Your task to perform on an android device: check android version Image 0: 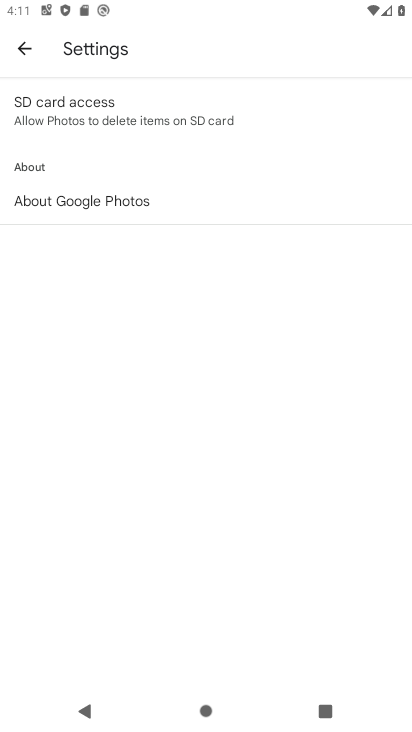
Step 0: press home button
Your task to perform on an android device: check android version Image 1: 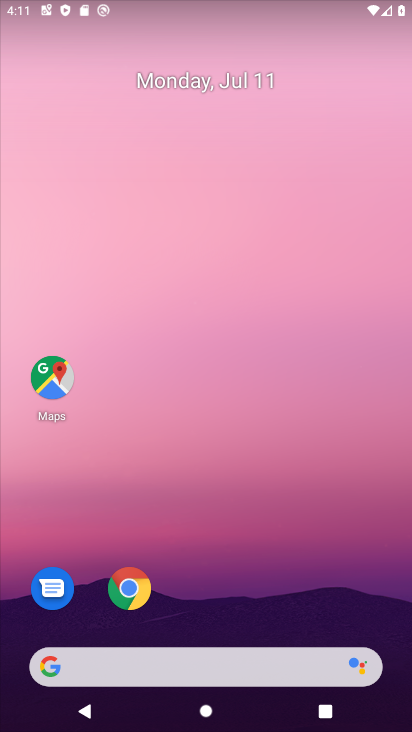
Step 1: drag from (336, 609) to (343, 127)
Your task to perform on an android device: check android version Image 2: 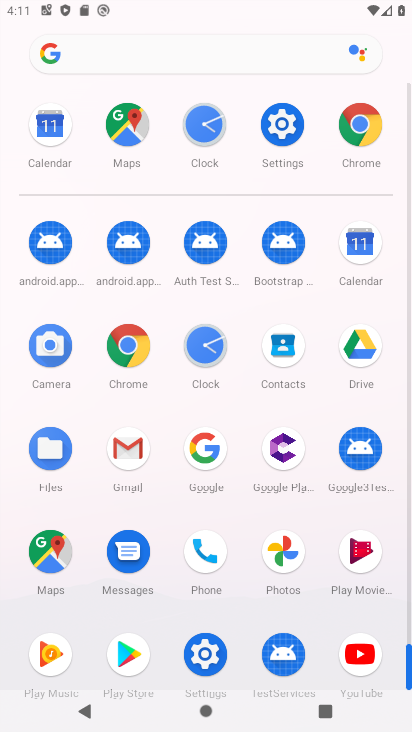
Step 2: click (287, 136)
Your task to perform on an android device: check android version Image 3: 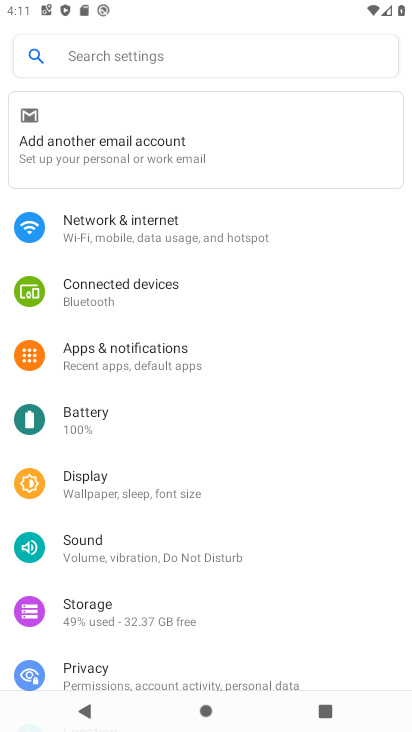
Step 3: drag from (339, 472) to (336, 332)
Your task to perform on an android device: check android version Image 4: 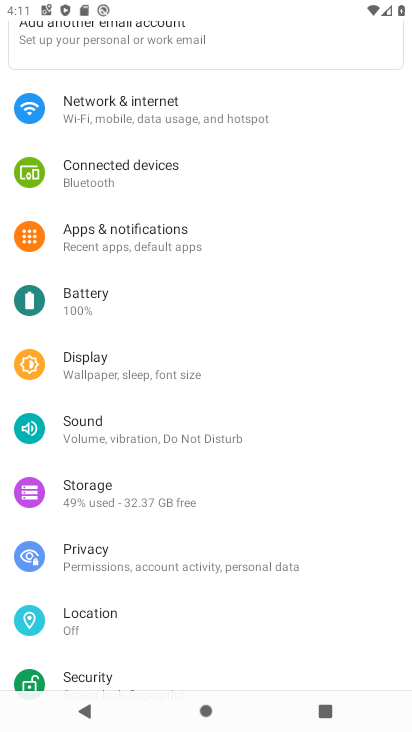
Step 4: drag from (350, 476) to (348, 348)
Your task to perform on an android device: check android version Image 5: 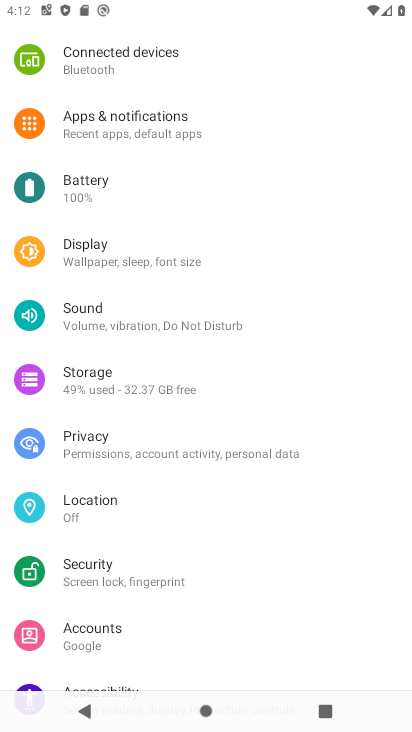
Step 5: drag from (344, 533) to (353, 394)
Your task to perform on an android device: check android version Image 6: 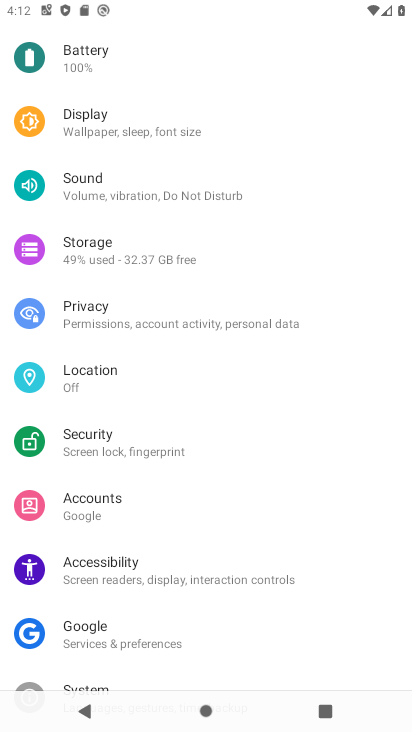
Step 6: drag from (351, 564) to (350, 444)
Your task to perform on an android device: check android version Image 7: 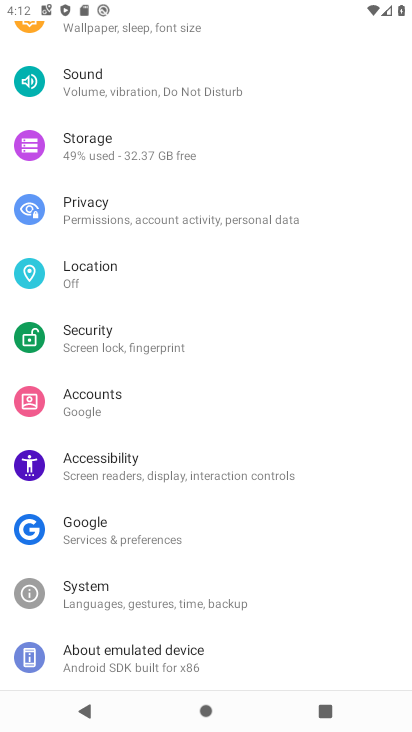
Step 7: drag from (339, 582) to (340, 415)
Your task to perform on an android device: check android version Image 8: 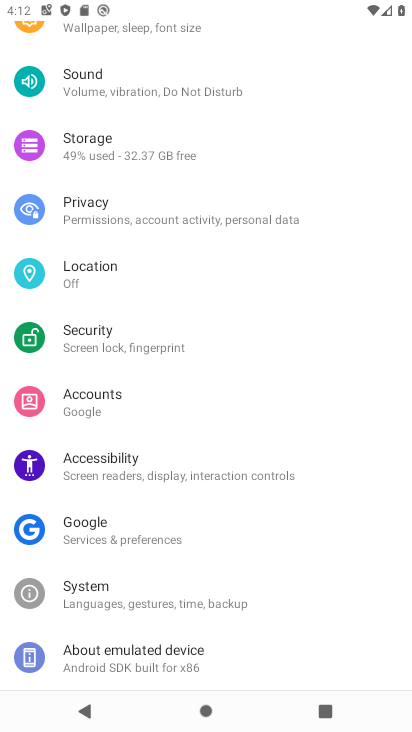
Step 8: drag from (363, 212) to (367, 379)
Your task to perform on an android device: check android version Image 9: 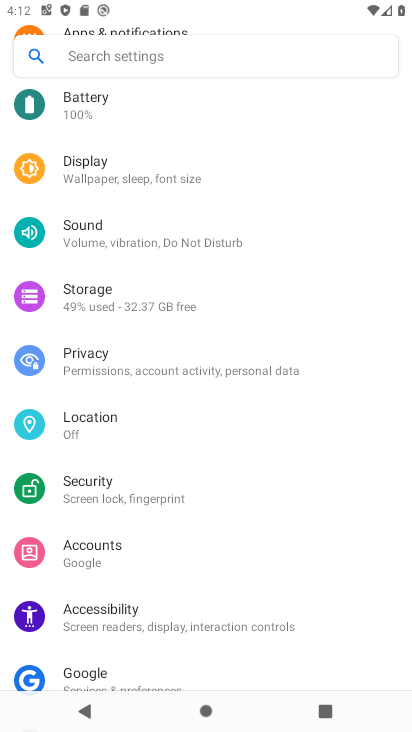
Step 9: drag from (339, 172) to (339, 330)
Your task to perform on an android device: check android version Image 10: 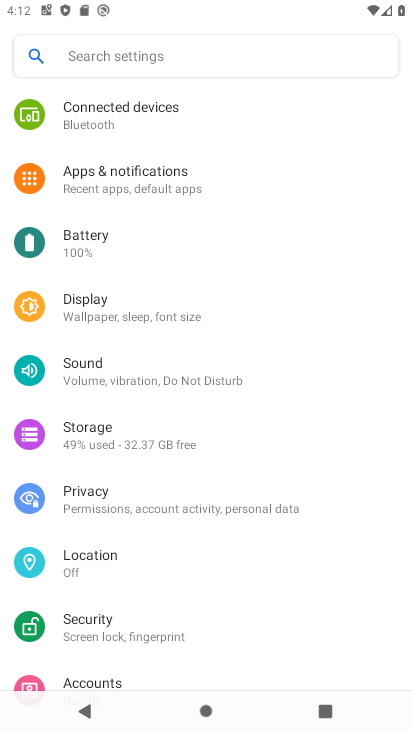
Step 10: drag from (335, 174) to (347, 368)
Your task to perform on an android device: check android version Image 11: 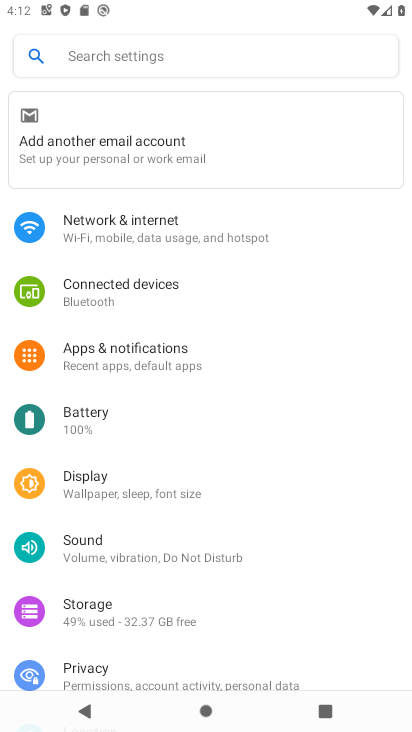
Step 11: drag from (341, 214) to (353, 364)
Your task to perform on an android device: check android version Image 12: 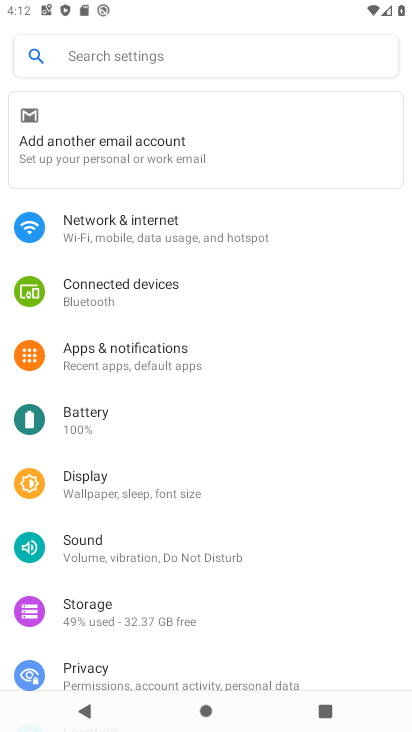
Step 12: drag from (327, 485) to (342, 321)
Your task to perform on an android device: check android version Image 13: 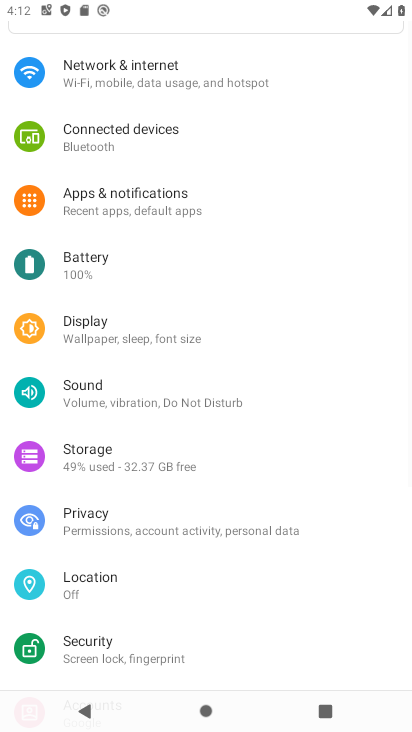
Step 13: drag from (344, 488) to (332, 340)
Your task to perform on an android device: check android version Image 14: 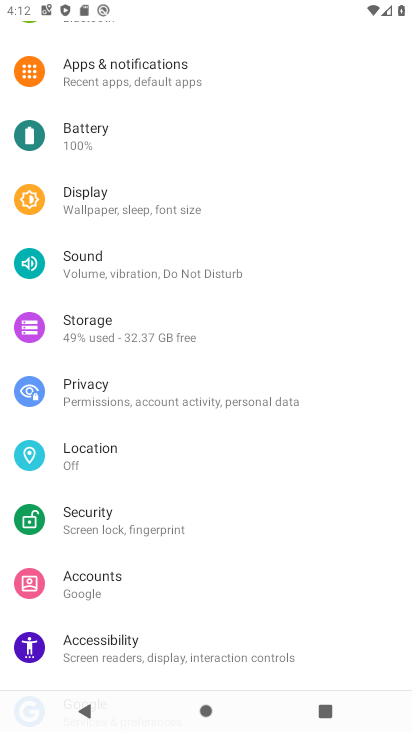
Step 14: drag from (314, 528) to (311, 334)
Your task to perform on an android device: check android version Image 15: 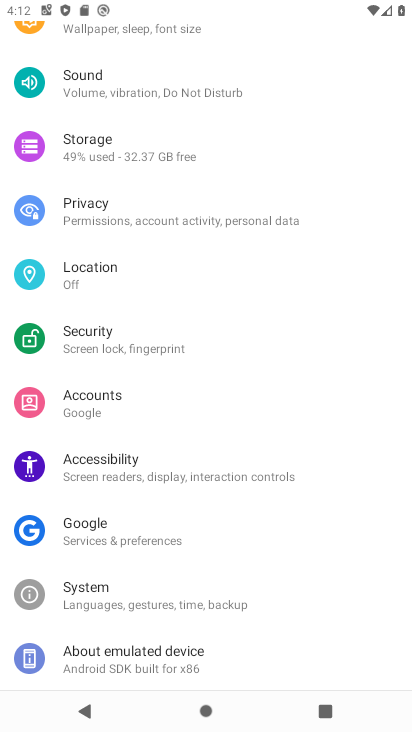
Step 15: drag from (316, 576) to (323, 440)
Your task to perform on an android device: check android version Image 16: 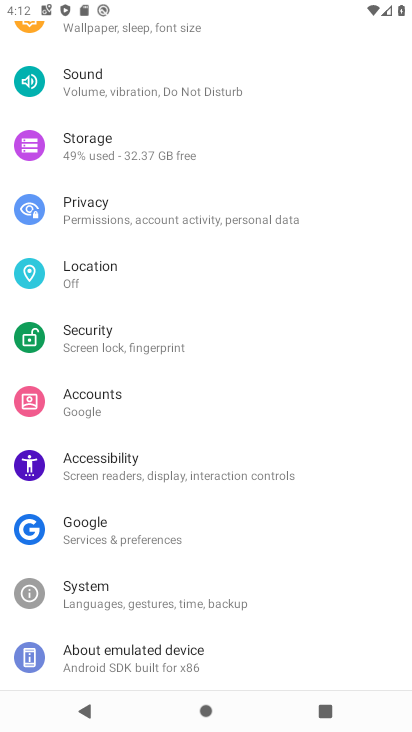
Step 16: click (264, 597)
Your task to perform on an android device: check android version Image 17: 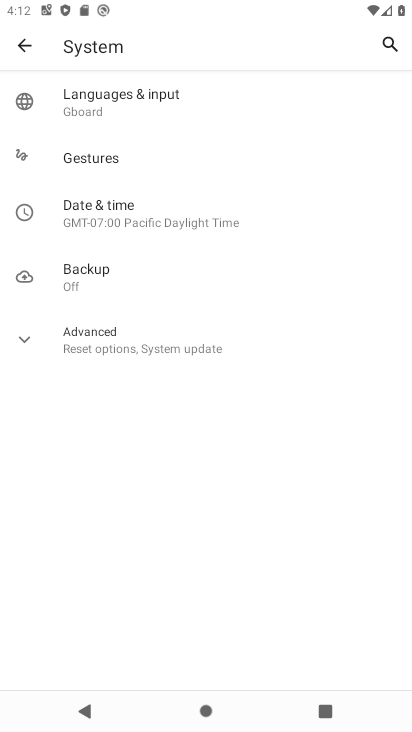
Step 17: click (196, 348)
Your task to perform on an android device: check android version Image 18: 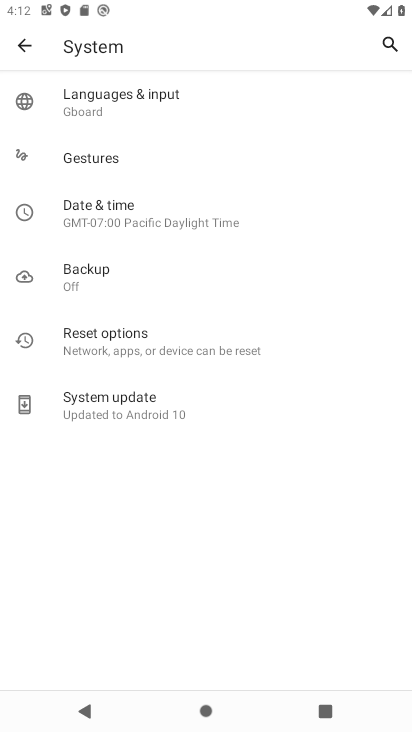
Step 18: task complete